Your task to perform on an android device: open app "Pinterest" (install if not already installed) Image 0: 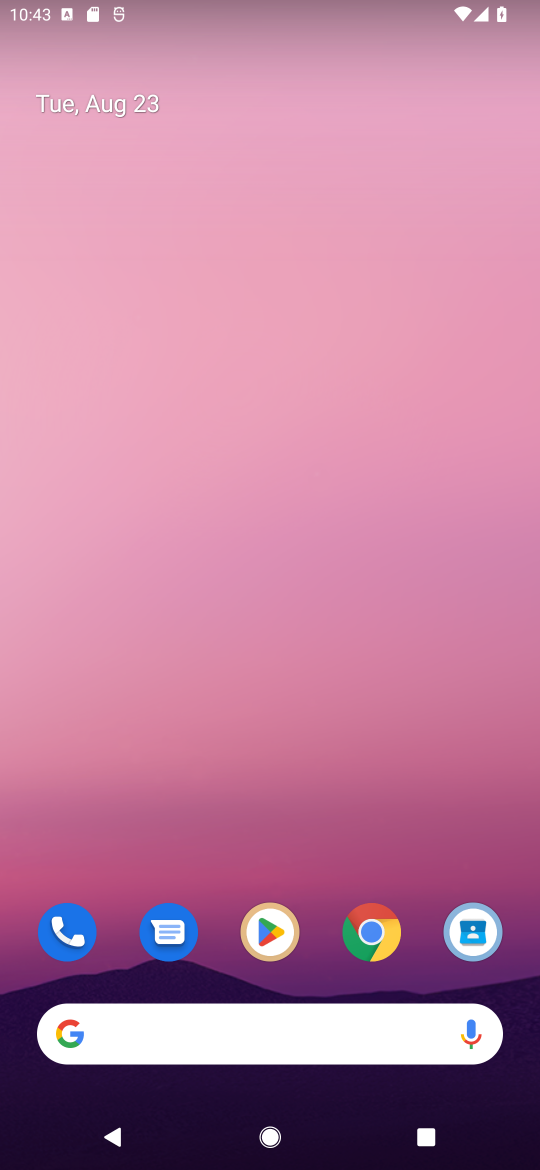
Step 0: click (265, 928)
Your task to perform on an android device: open app "Pinterest" (install if not already installed) Image 1: 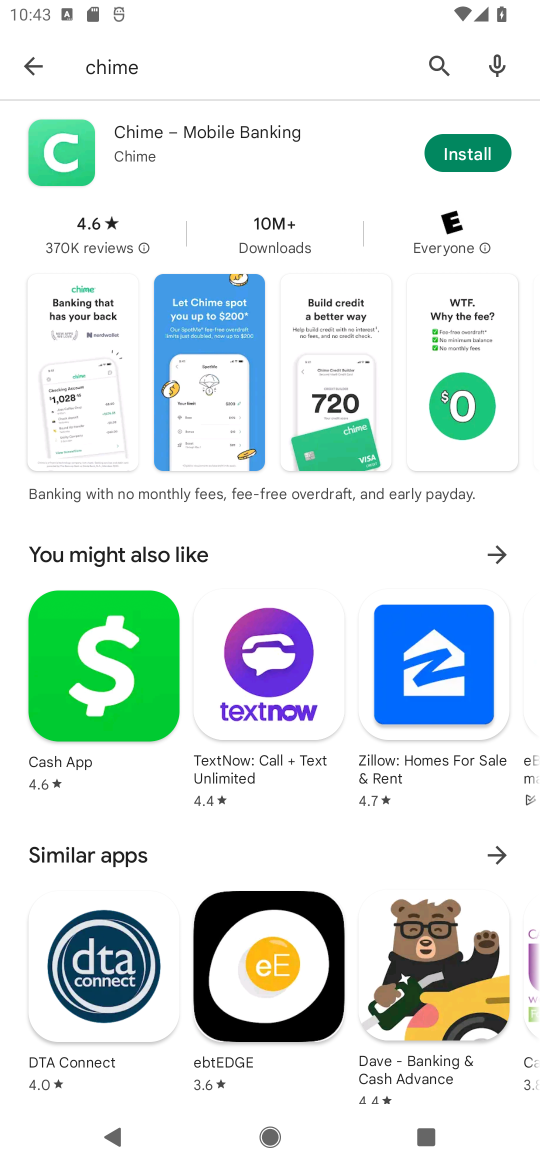
Step 1: click (438, 53)
Your task to perform on an android device: open app "Pinterest" (install if not already installed) Image 2: 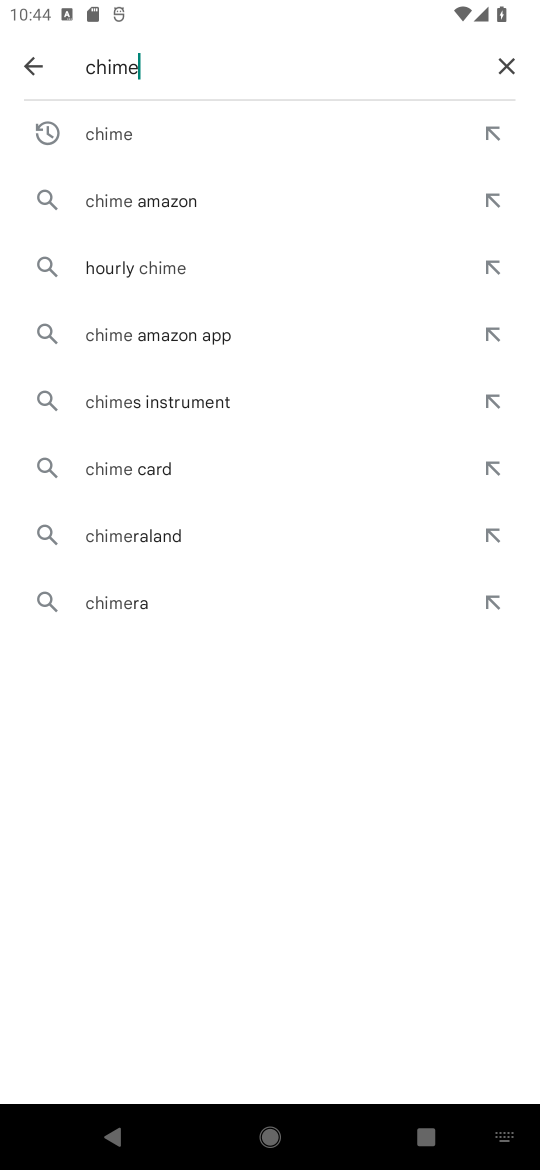
Step 2: click (532, 51)
Your task to perform on an android device: open app "Pinterest" (install if not already installed) Image 3: 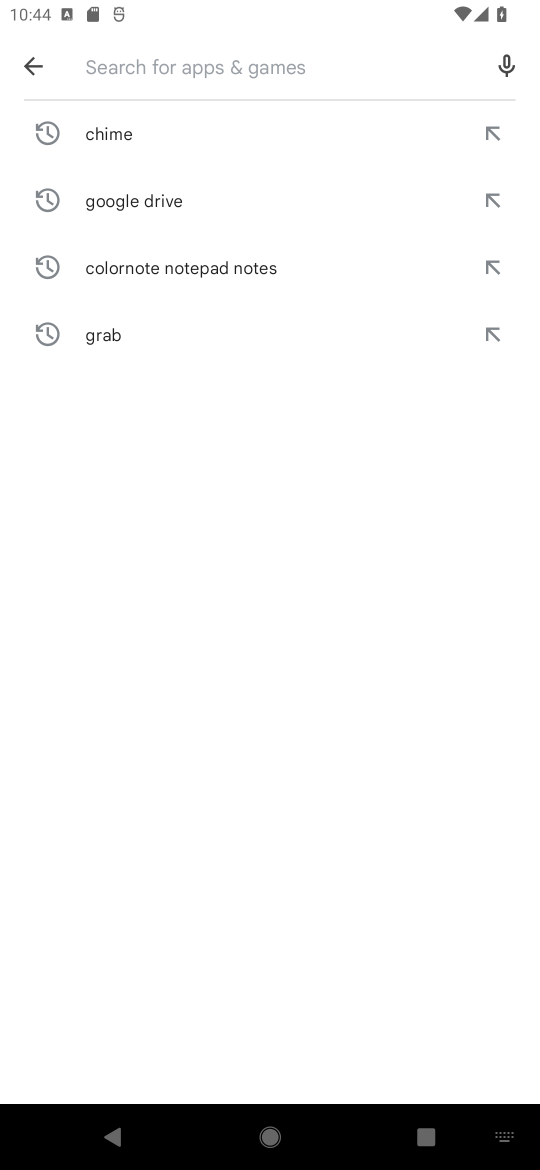
Step 3: click (184, 74)
Your task to perform on an android device: open app "Pinterest" (install if not already installed) Image 4: 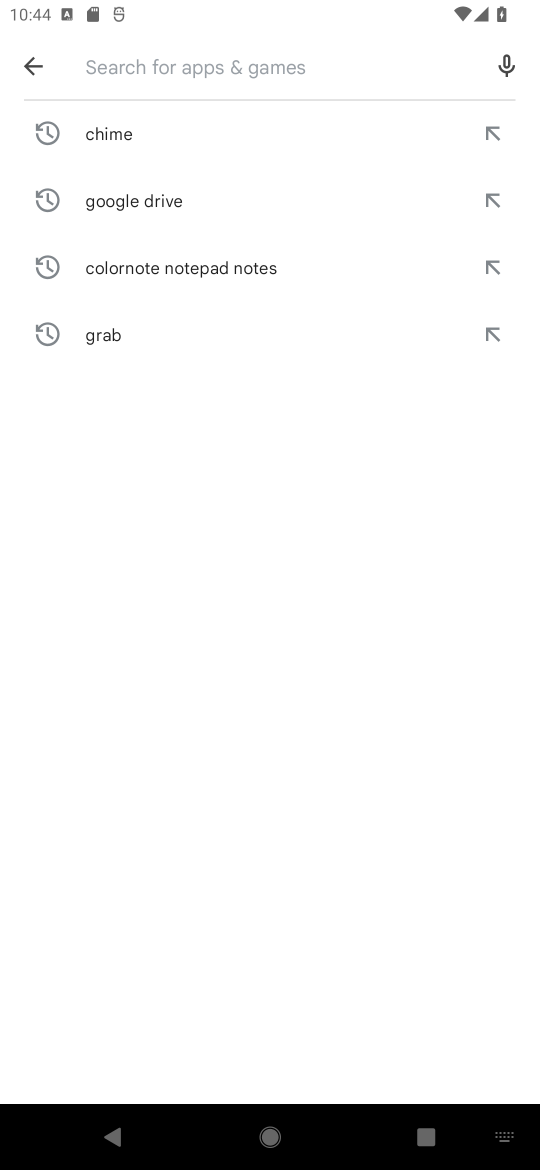
Step 4: type "Pinterest"
Your task to perform on an android device: open app "Pinterest" (install if not already installed) Image 5: 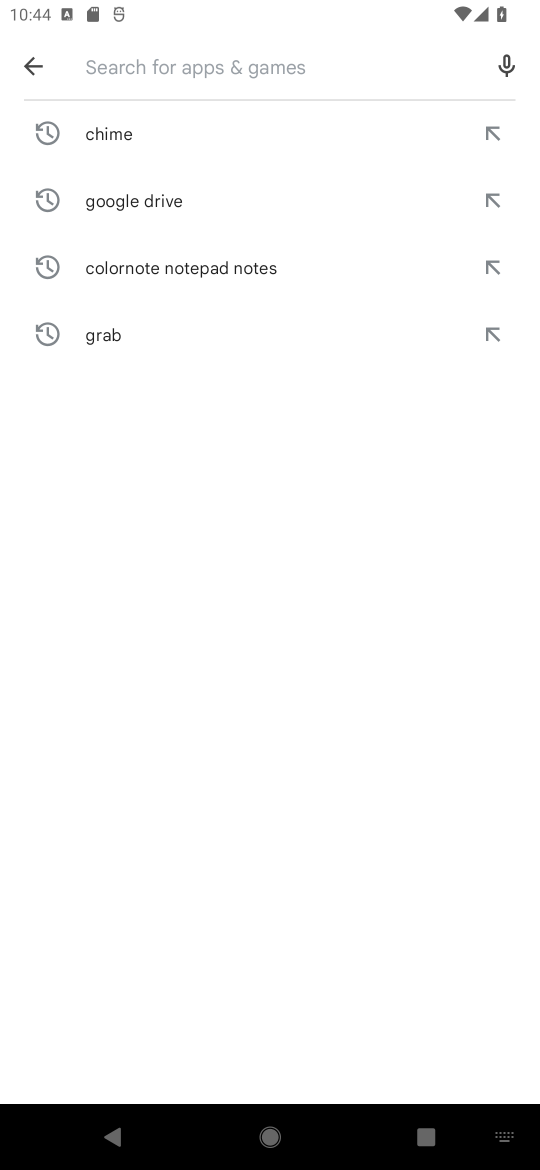
Step 5: click (229, 739)
Your task to perform on an android device: open app "Pinterest" (install if not already installed) Image 6: 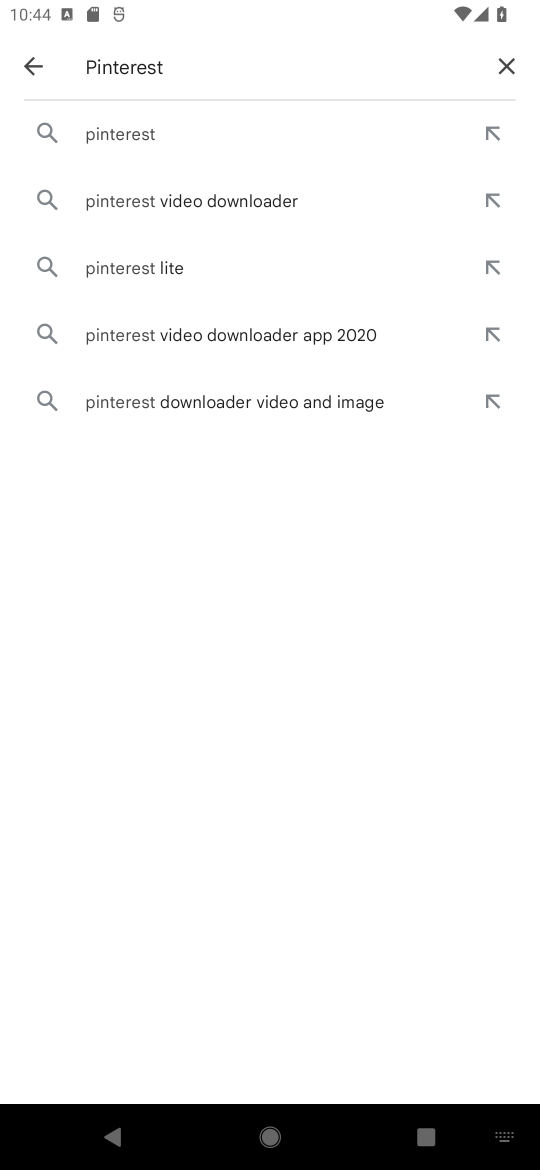
Step 6: click (186, 132)
Your task to perform on an android device: open app "Pinterest" (install if not already installed) Image 7: 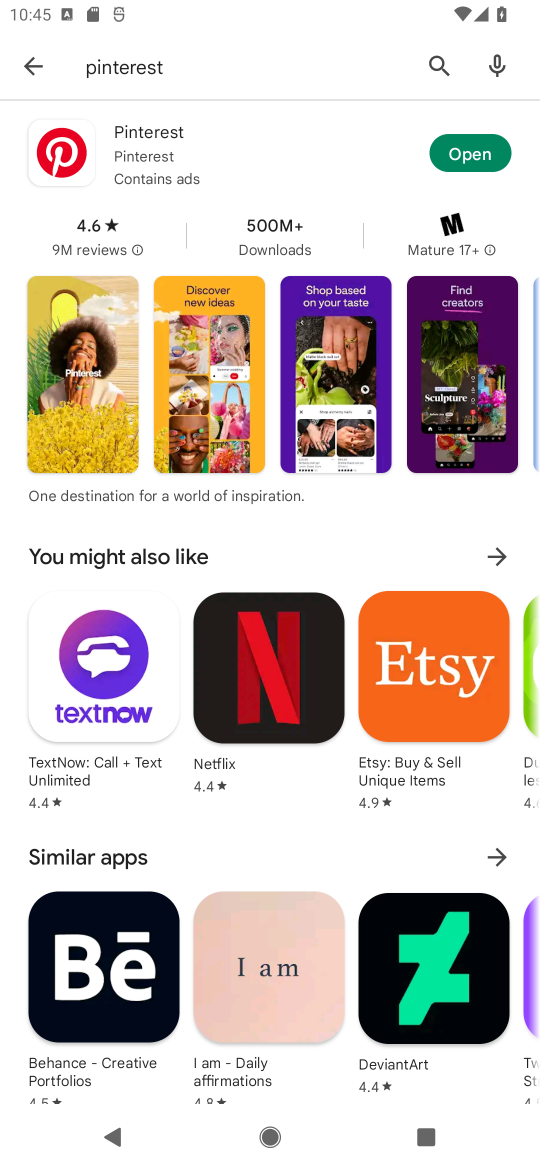
Step 7: click (465, 147)
Your task to perform on an android device: open app "Pinterest" (install if not already installed) Image 8: 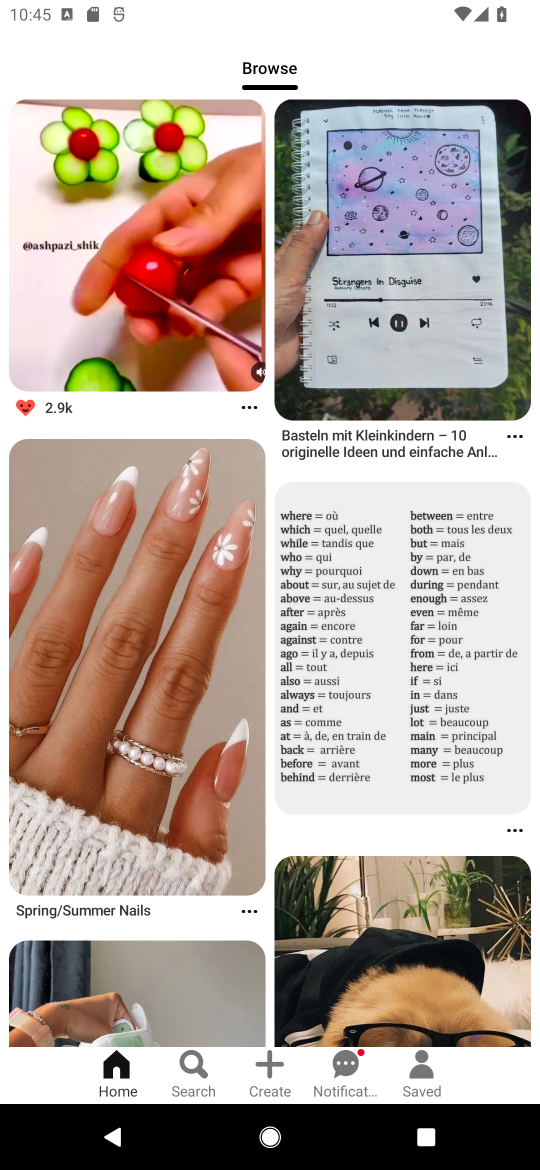
Step 8: task complete